Your task to perform on an android device: open the mobile data screen to see how much data has been used Image 0: 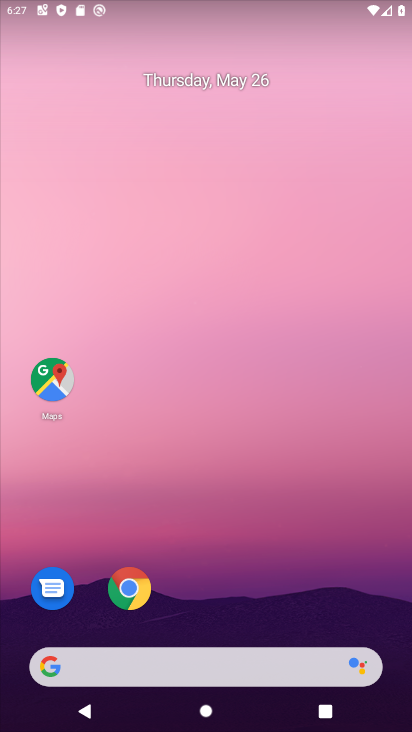
Step 0: drag from (380, 605) to (217, 4)
Your task to perform on an android device: open the mobile data screen to see how much data has been used Image 1: 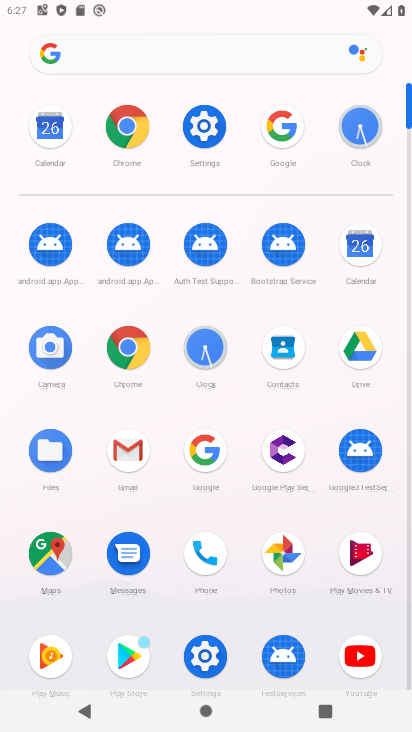
Step 1: click (185, 148)
Your task to perform on an android device: open the mobile data screen to see how much data has been used Image 2: 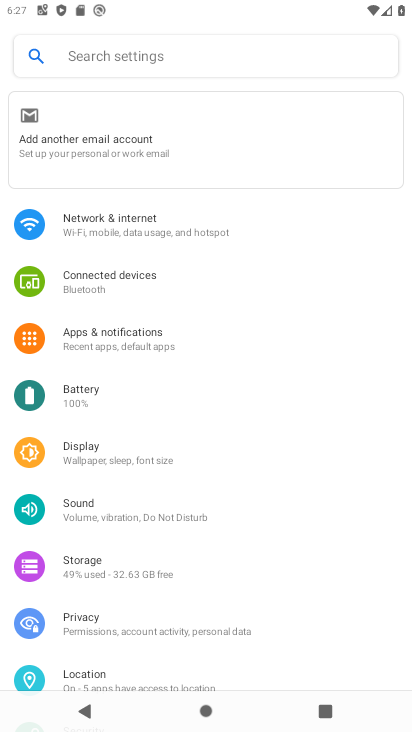
Step 2: click (143, 233)
Your task to perform on an android device: open the mobile data screen to see how much data has been used Image 3: 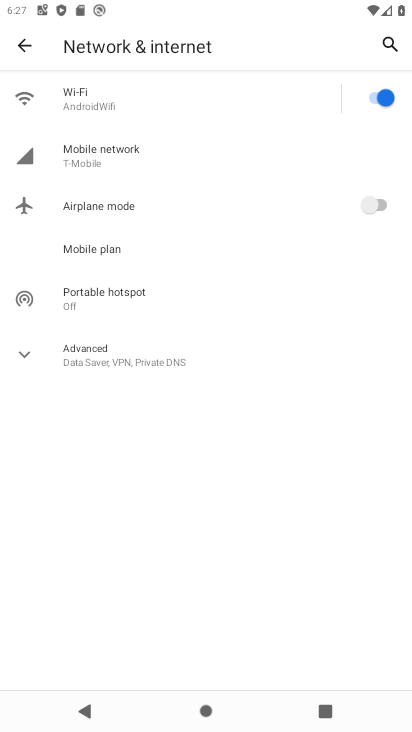
Step 3: click (138, 157)
Your task to perform on an android device: open the mobile data screen to see how much data has been used Image 4: 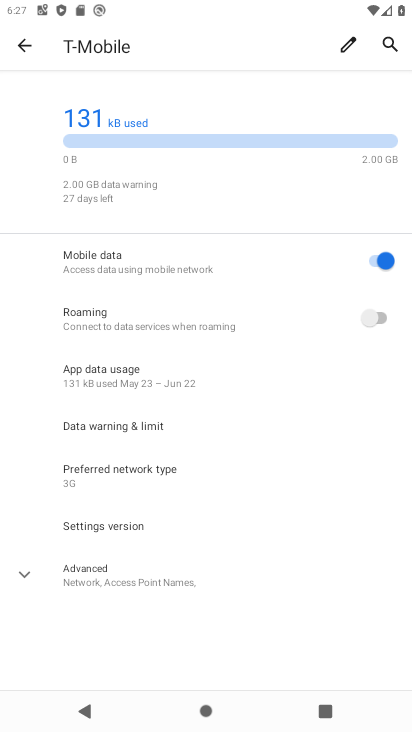
Step 4: click (164, 376)
Your task to perform on an android device: open the mobile data screen to see how much data has been used Image 5: 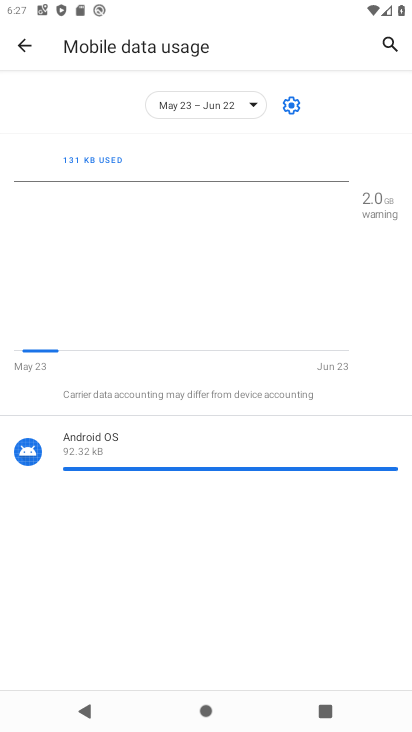
Step 5: task complete